Your task to perform on an android device: Add "logitech g pro" to the cart on ebay, then select checkout. Image 0: 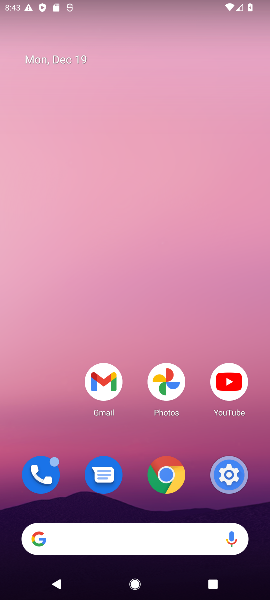
Step 0: click (166, 468)
Your task to perform on an android device: Add "logitech g pro" to the cart on ebay, then select checkout. Image 1: 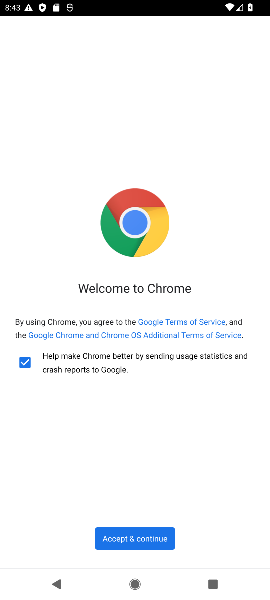
Step 1: click (134, 545)
Your task to perform on an android device: Add "logitech g pro" to the cart on ebay, then select checkout. Image 2: 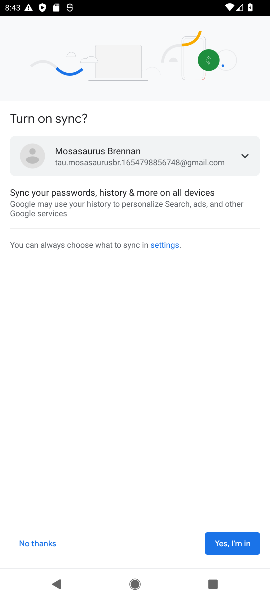
Step 2: click (231, 538)
Your task to perform on an android device: Add "logitech g pro" to the cart on ebay, then select checkout. Image 3: 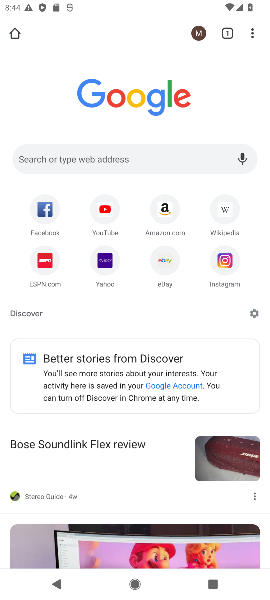
Step 3: click (143, 155)
Your task to perform on an android device: Add "logitech g pro" to the cart on ebay, then select checkout. Image 4: 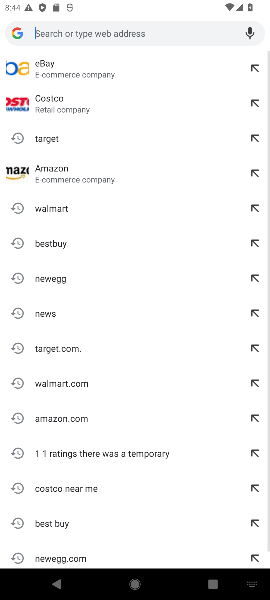
Step 4: click (46, 74)
Your task to perform on an android device: Add "logitech g pro" to the cart on ebay, then select checkout. Image 5: 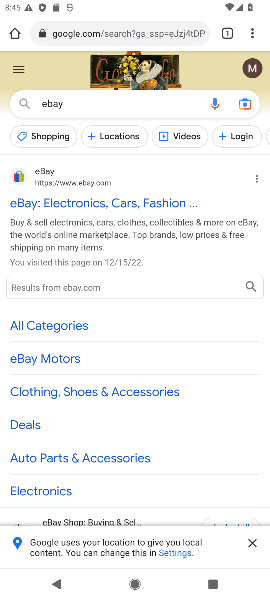
Step 5: click (95, 205)
Your task to perform on an android device: Add "logitech g pro" to the cart on ebay, then select checkout. Image 6: 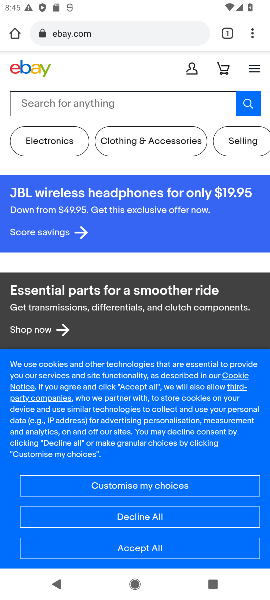
Step 6: click (134, 550)
Your task to perform on an android device: Add "logitech g pro" to the cart on ebay, then select checkout. Image 7: 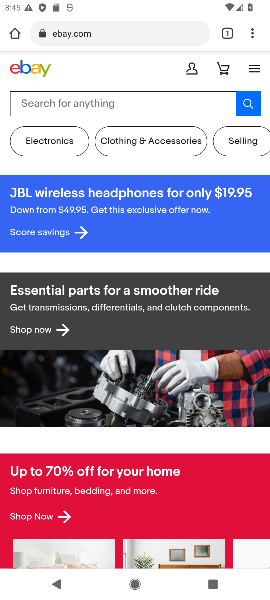
Step 7: click (139, 104)
Your task to perform on an android device: Add "logitech g pro" to the cart on ebay, then select checkout. Image 8: 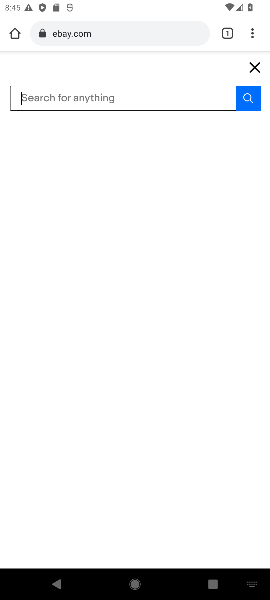
Step 8: type "logitech g pro"
Your task to perform on an android device: Add "logitech g pro" to the cart on ebay, then select checkout. Image 9: 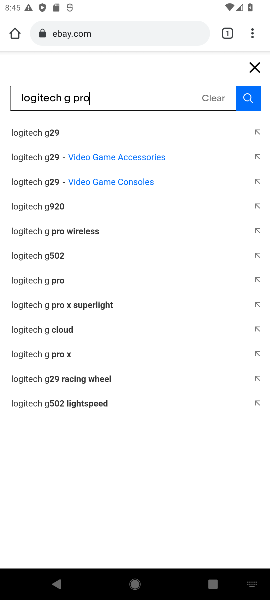
Step 9: click (247, 95)
Your task to perform on an android device: Add "logitech g pro" to the cart on ebay, then select checkout. Image 10: 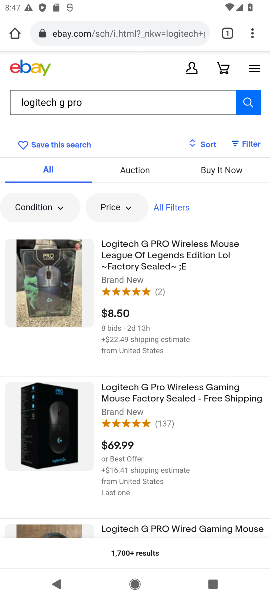
Step 10: click (216, 248)
Your task to perform on an android device: Add "logitech g pro" to the cart on ebay, then select checkout. Image 11: 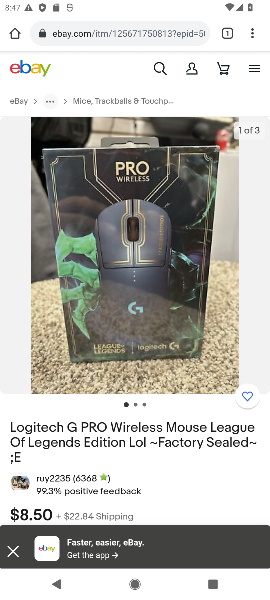
Step 11: task complete